Your task to perform on an android device: see creations saved in the google photos Image 0: 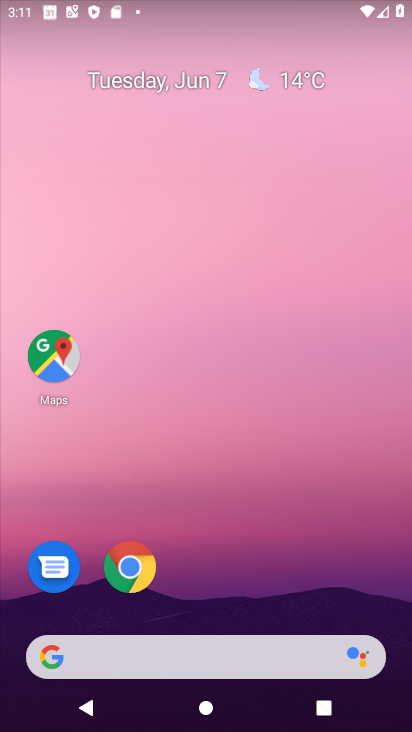
Step 0: drag from (180, 594) to (185, 273)
Your task to perform on an android device: see creations saved in the google photos Image 1: 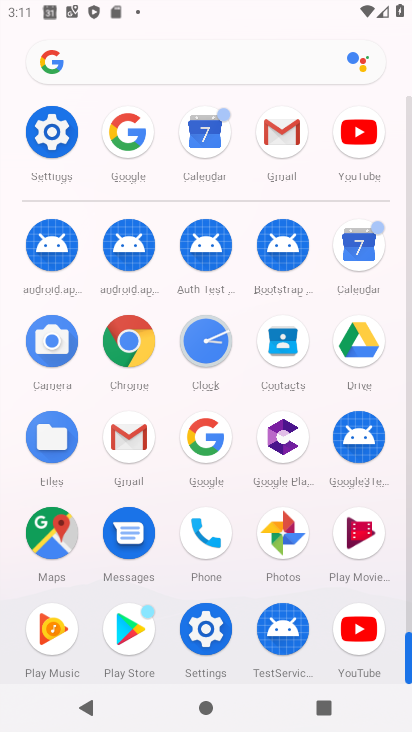
Step 1: click (267, 530)
Your task to perform on an android device: see creations saved in the google photos Image 2: 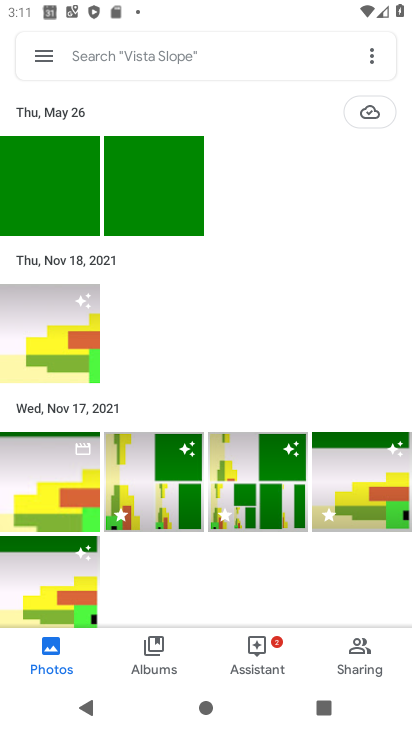
Step 2: click (195, 54)
Your task to perform on an android device: see creations saved in the google photos Image 3: 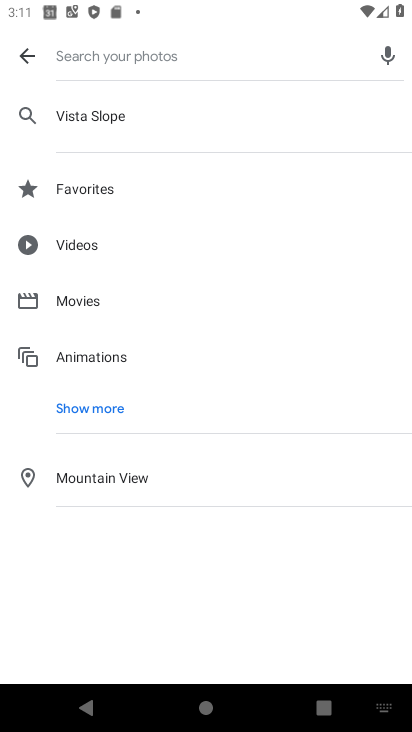
Step 3: click (110, 405)
Your task to perform on an android device: see creations saved in the google photos Image 4: 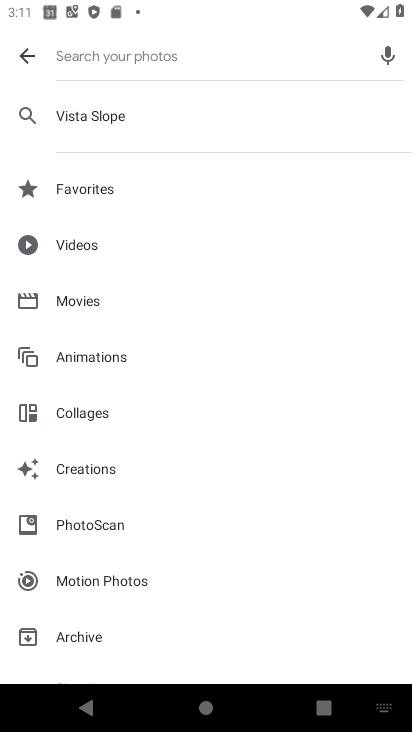
Step 4: click (104, 469)
Your task to perform on an android device: see creations saved in the google photos Image 5: 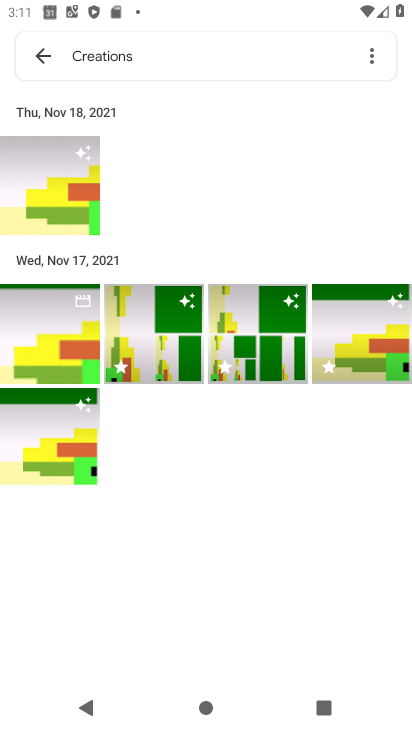
Step 5: task complete